Your task to perform on an android device: set the stopwatch Image 0: 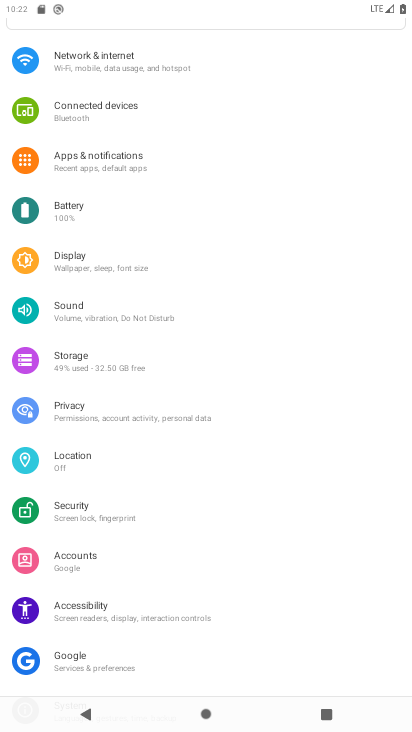
Step 0: press home button
Your task to perform on an android device: set the stopwatch Image 1: 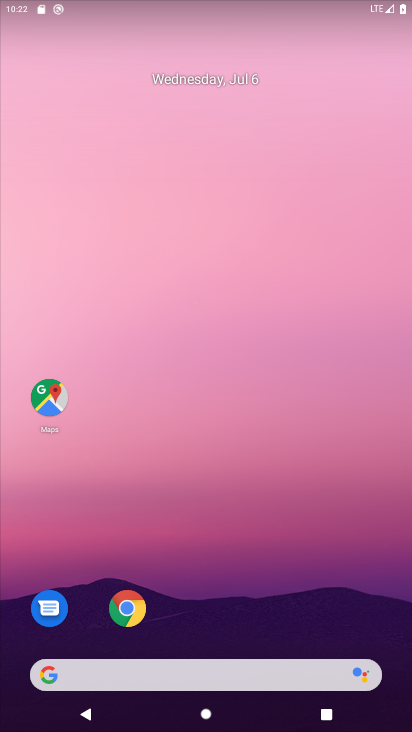
Step 1: drag from (273, 593) to (390, 4)
Your task to perform on an android device: set the stopwatch Image 2: 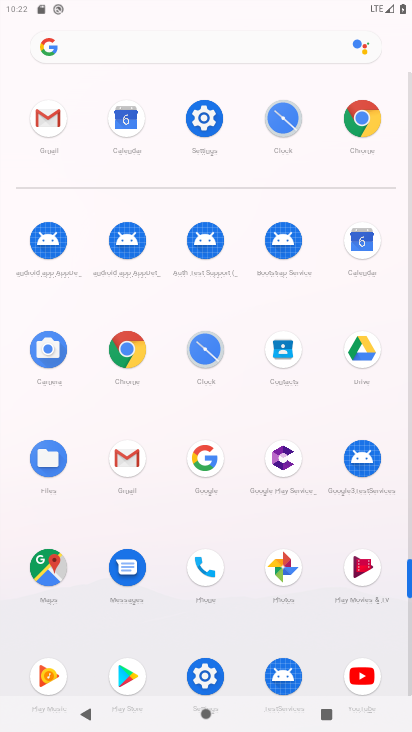
Step 2: click (206, 336)
Your task to perform on an android device: set the stopwatch Image 3: 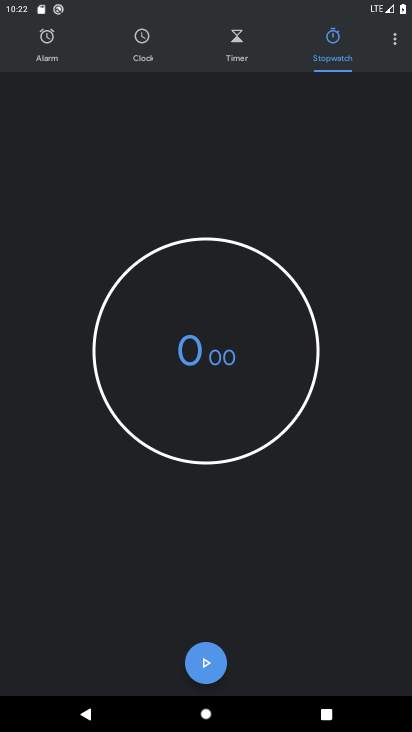
Step 3: click (204, 663)
Your task to perform on an android device: set the stopwatch Image 4: 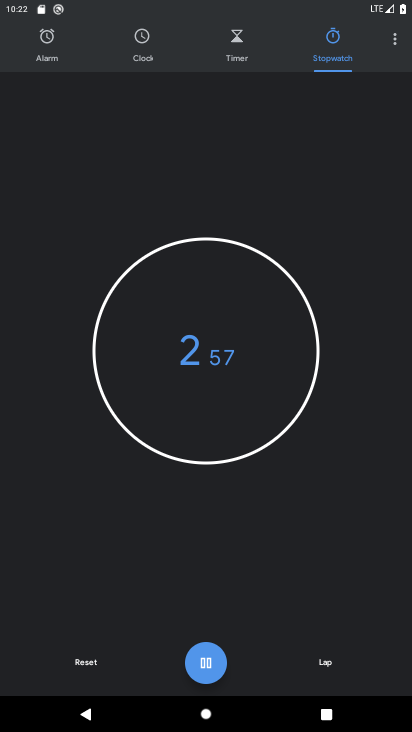
Step 4: task complete